Your task to perform on an android device: Is it going to rain today? Image 0: 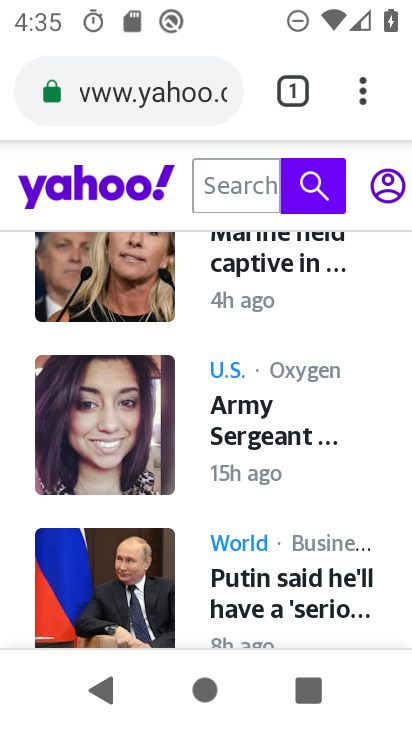
Step 0: press home button
Your task to perform on an android device: Is it going to rain today? Image 1: 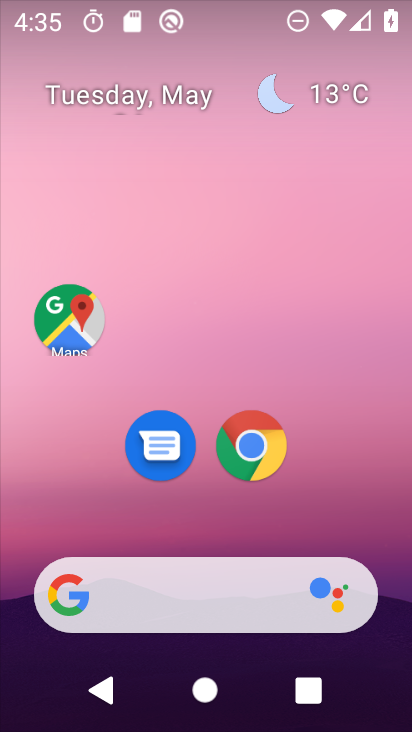
Step 1: click (329, 92)
Your task to perform on an android device: Is it going to rain today? Image 2: 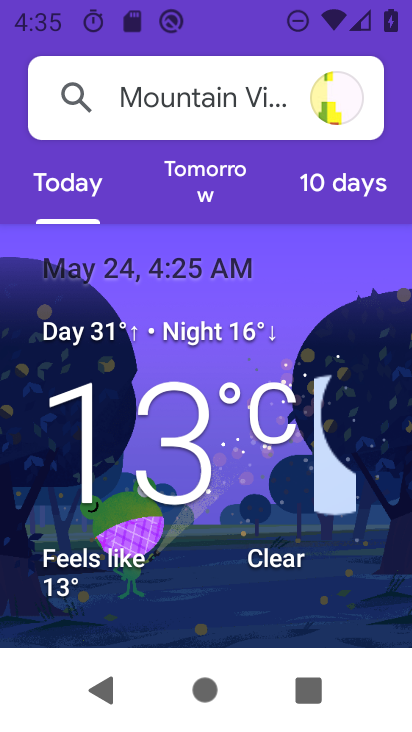
Step 2: drag from (235, 567) to (243, 183)
Your task to perform on an android device: Is it going to rain today? Image 3: 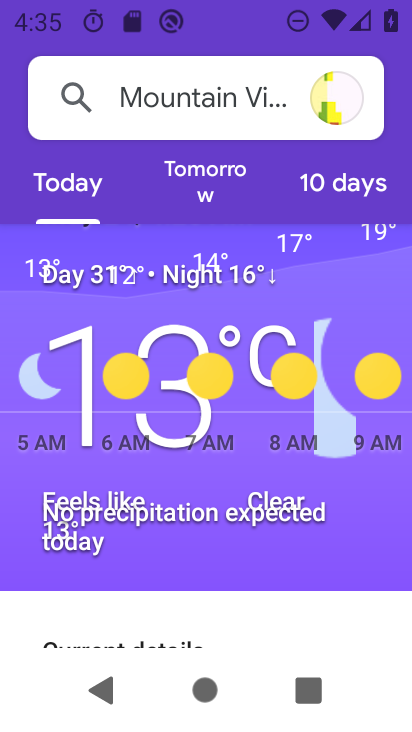
Step 3: drag from (348, 436) to (55, 426)
Your task to perform on an android device: Is it going to rain today? Image 4: 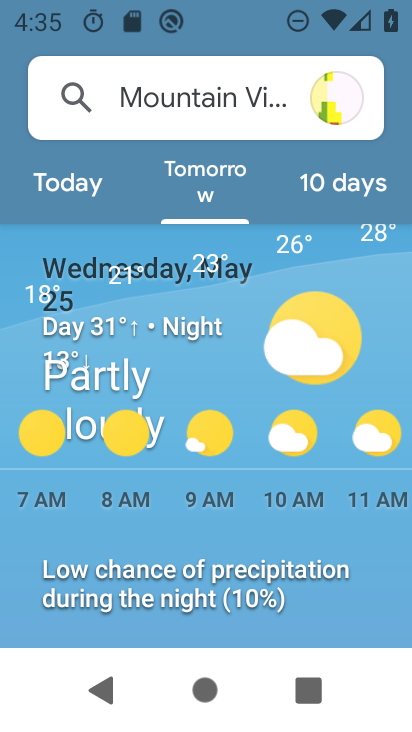
Step 4: click (79, 179)
Your task to perform on an android device: Is it going to rain today? Image 5: 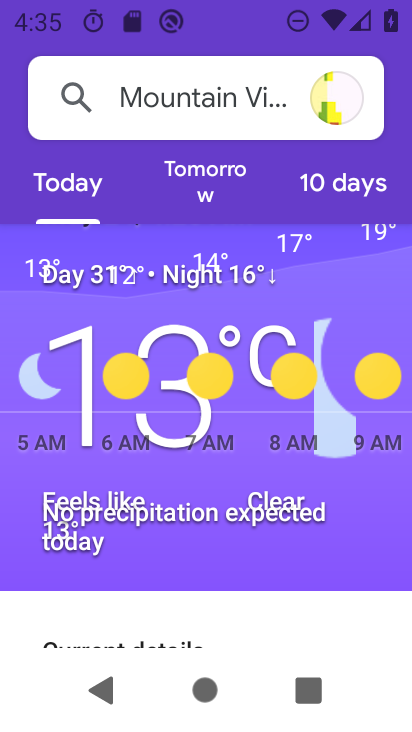
Step 5: task complete